Your task to perform on an android device: refresh tabs in the chrome app Image 0: 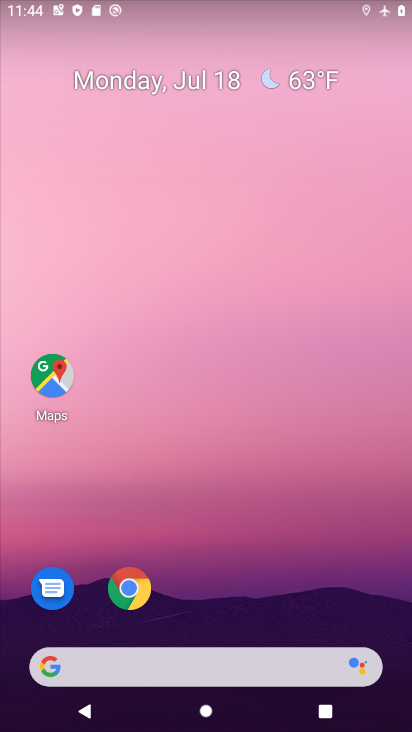
Step 0: drag from (299, 417) to (350, 18)
Your task to perform on an android device: refresh tabs in the chrome app Image 1: 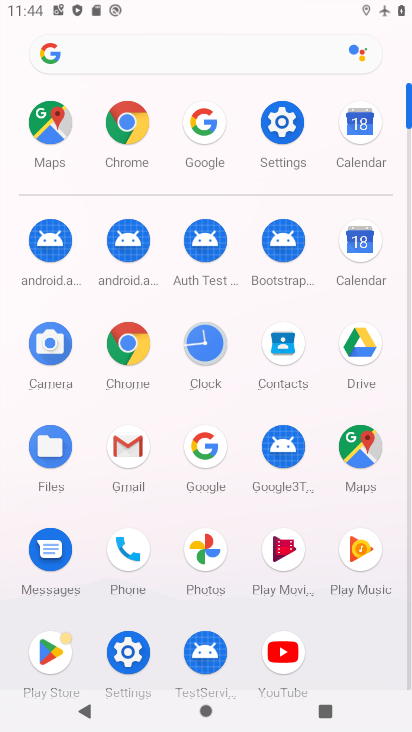
Step 1: click (123, 133)
Your task to perform on an android device: refresh tabs in the chrome app Image 2: 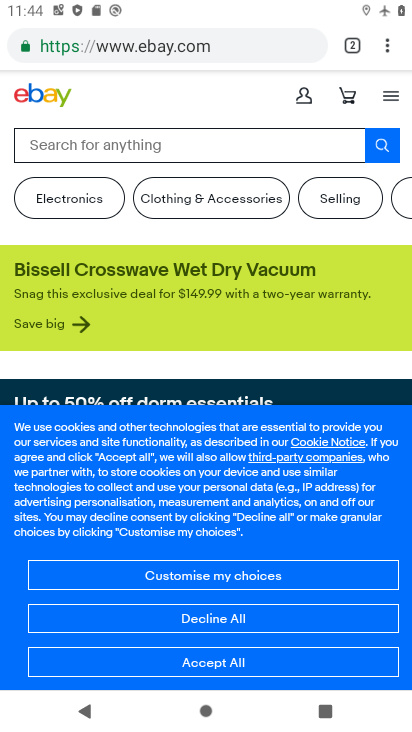
Step 2: click (384, 45)
Your task to perform on an android device: refresh tabs in the chrome app Image 3: 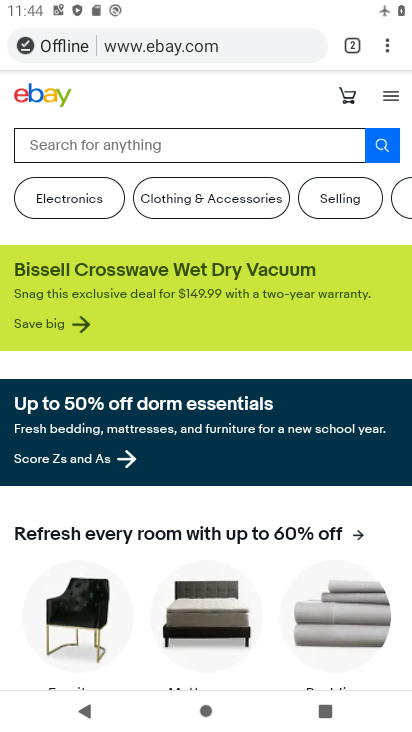
Step 3: task complete